Your task to perform on an android device: uninstall "Google Chrome" Image 0: 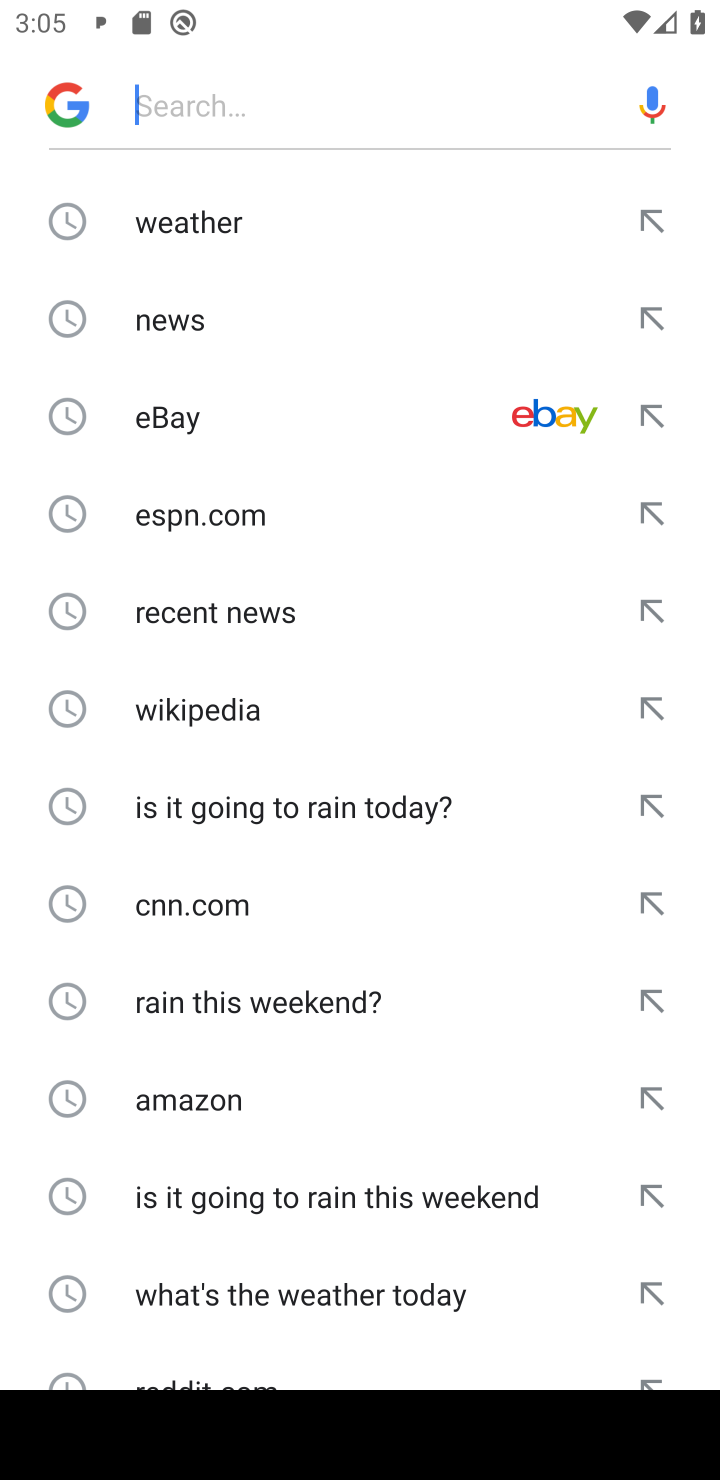
Step 0: press home button
Your task to perform on an android device: uninstall "Google Chrome" Image 1: 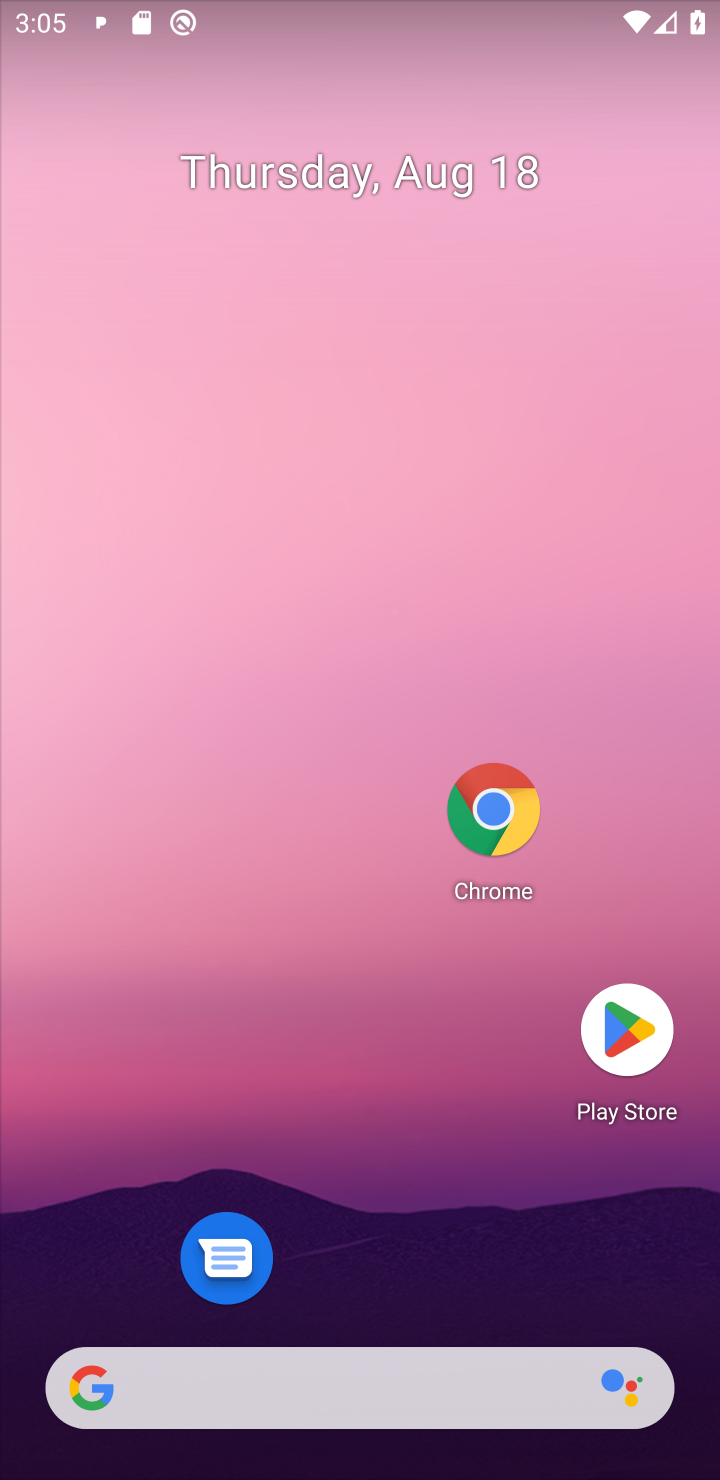
Step 1: click (607, 1028)
Your task to perform on an android device: uninstall "Google Chrome" Image 2: 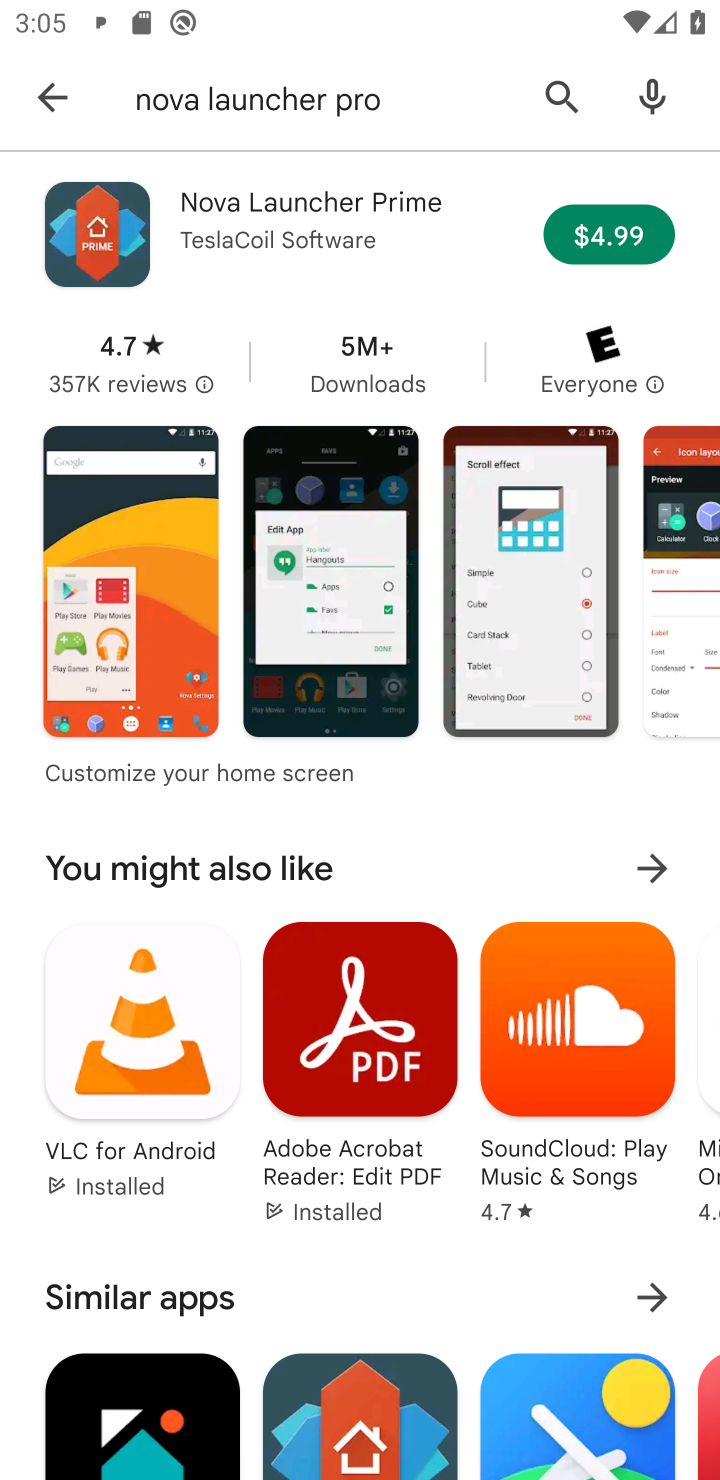
Step 2: click (551, 87)
Your task to perform on an android device: uninstall "Google Chrome" Image 3: 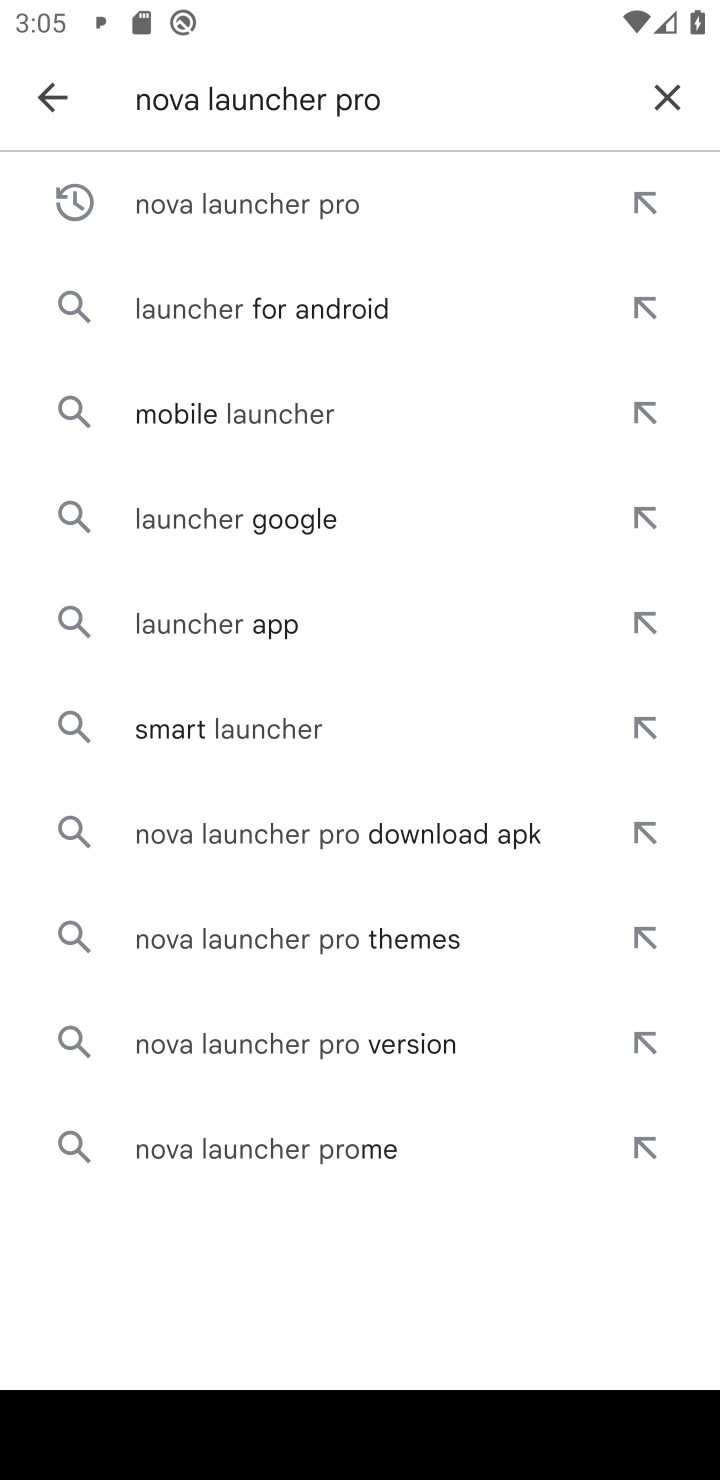
Step 3: click (679, 82)
Your task to perform on an android device: uninstall "Google Chrome" Image 4: 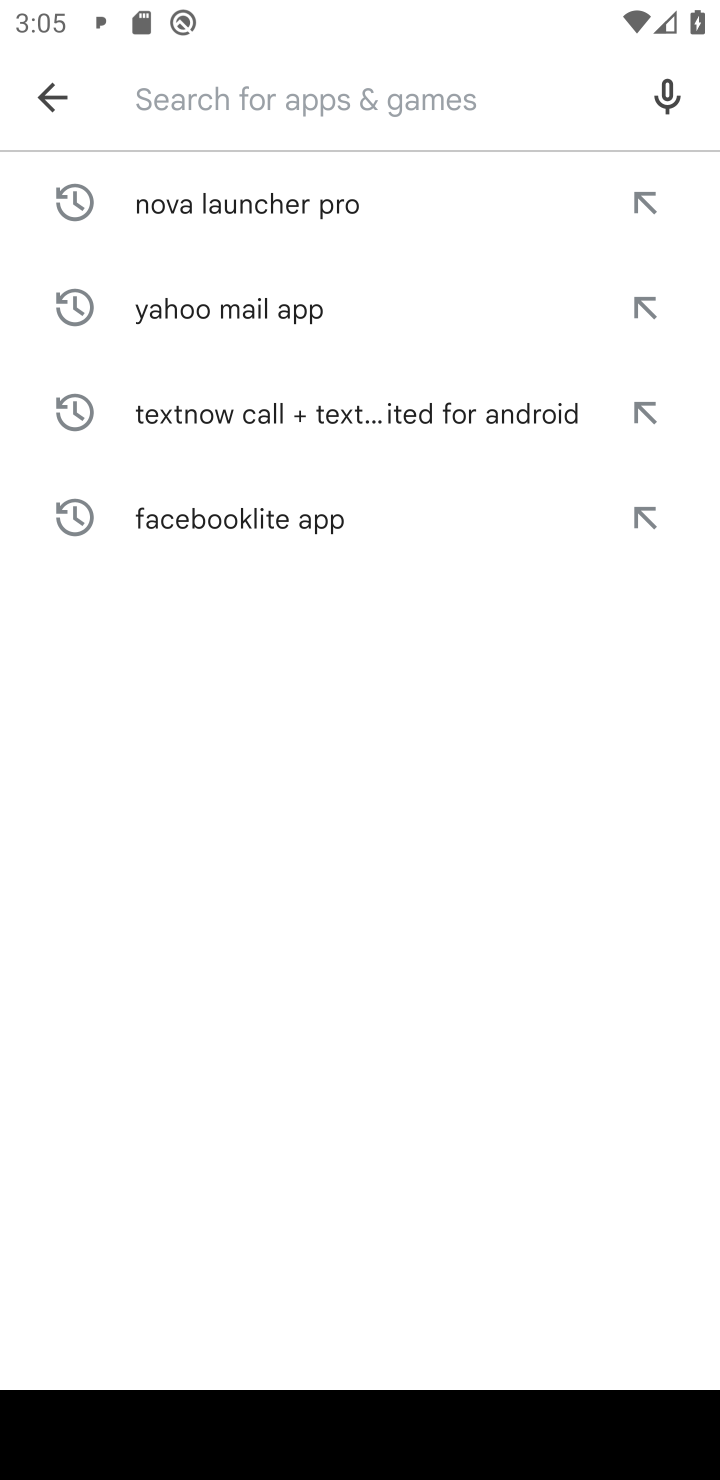
Step 4: click (237, 77)
Your task to perform on an android device: uninstall "Google Chrome" Image 5: 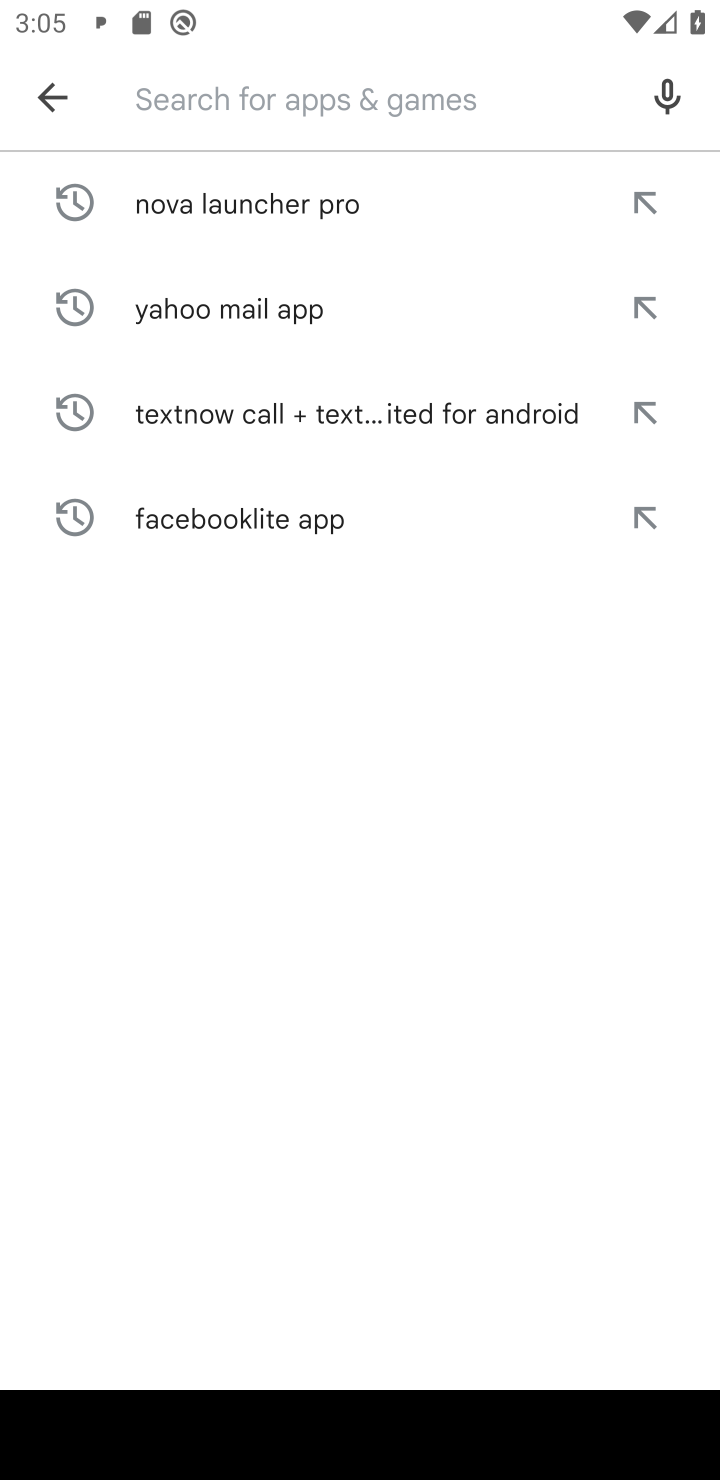
Step 5: type "google chrome "
Your task to perform on an android device: uninstall "Google Chrome" Image 6: 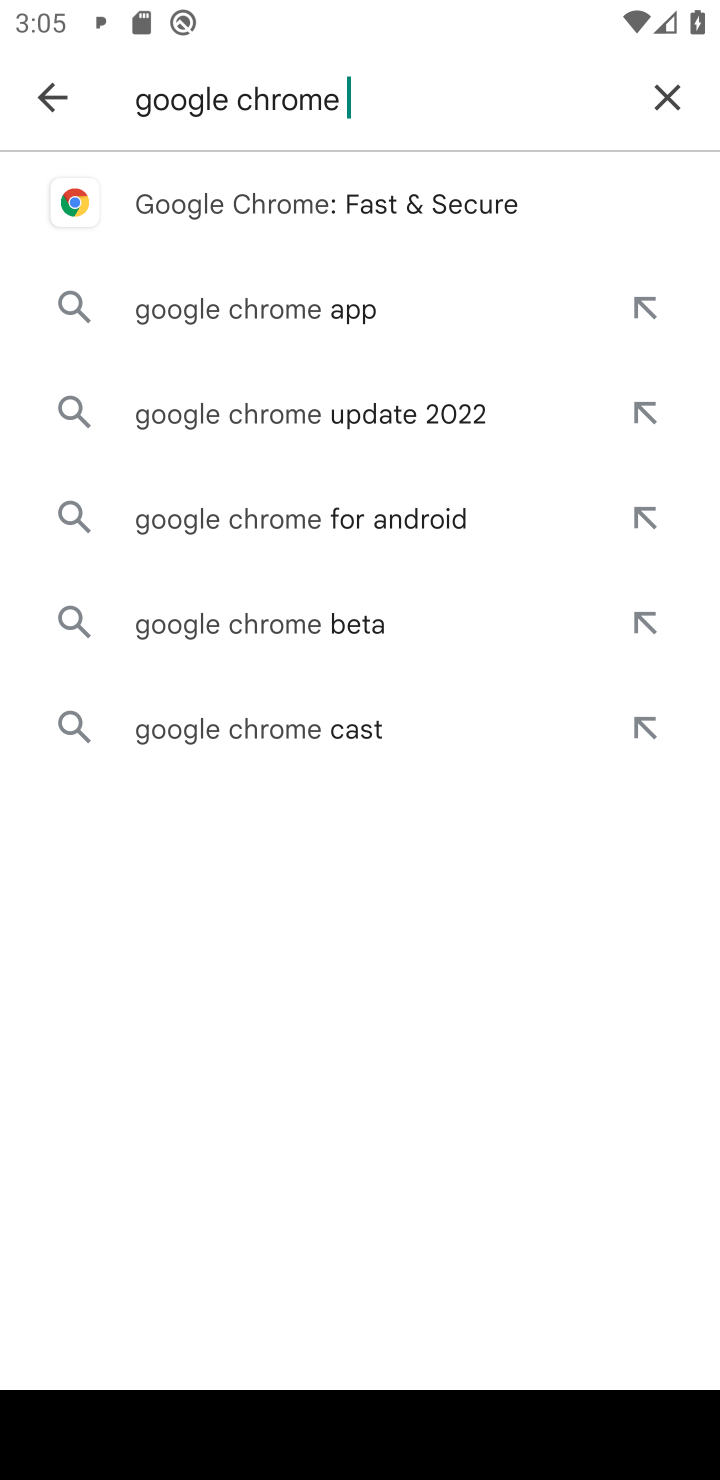
Step 6: click (287, 209)
Your task to perform on an android device: uninstall "Google Chrome" Image 7: 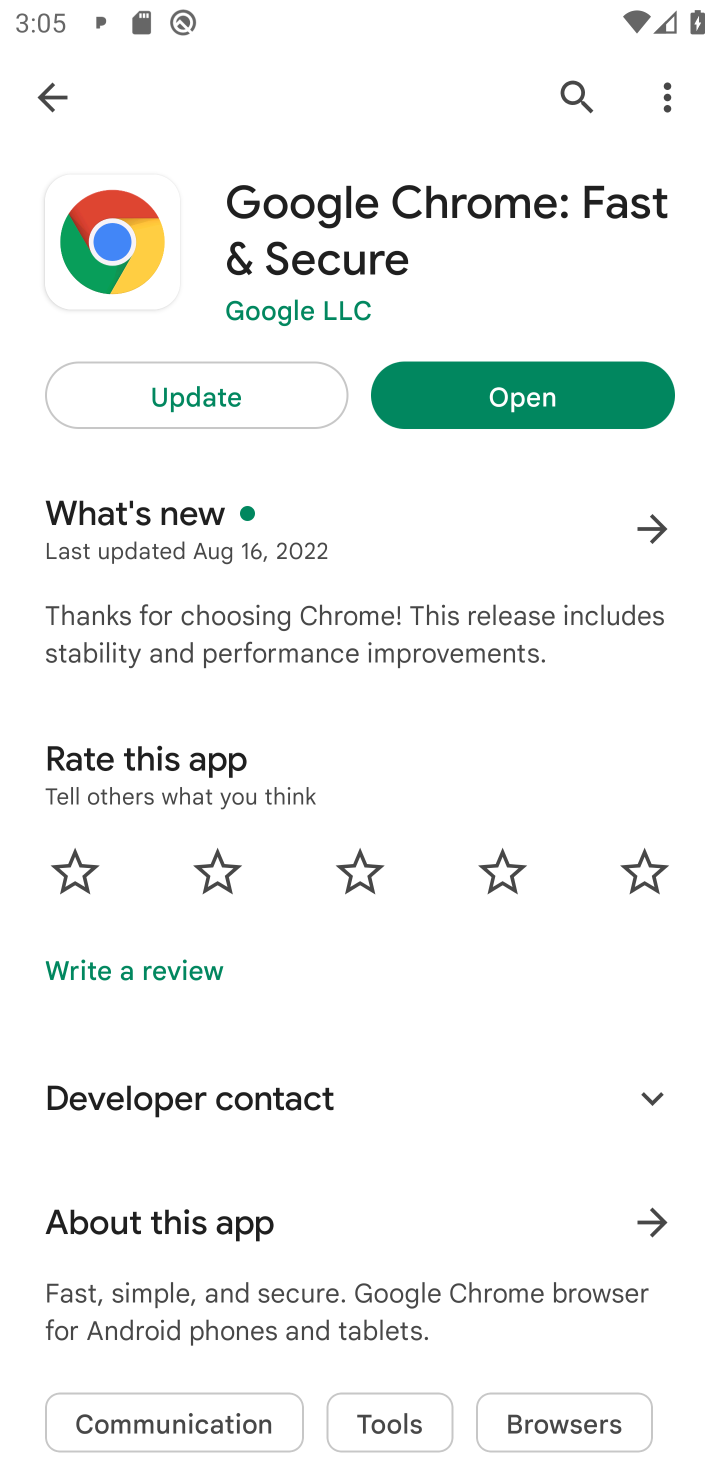
Step 7: click (552, 385)
Your task to perform on an android device: uninstall "Google Chrome" Image 8: 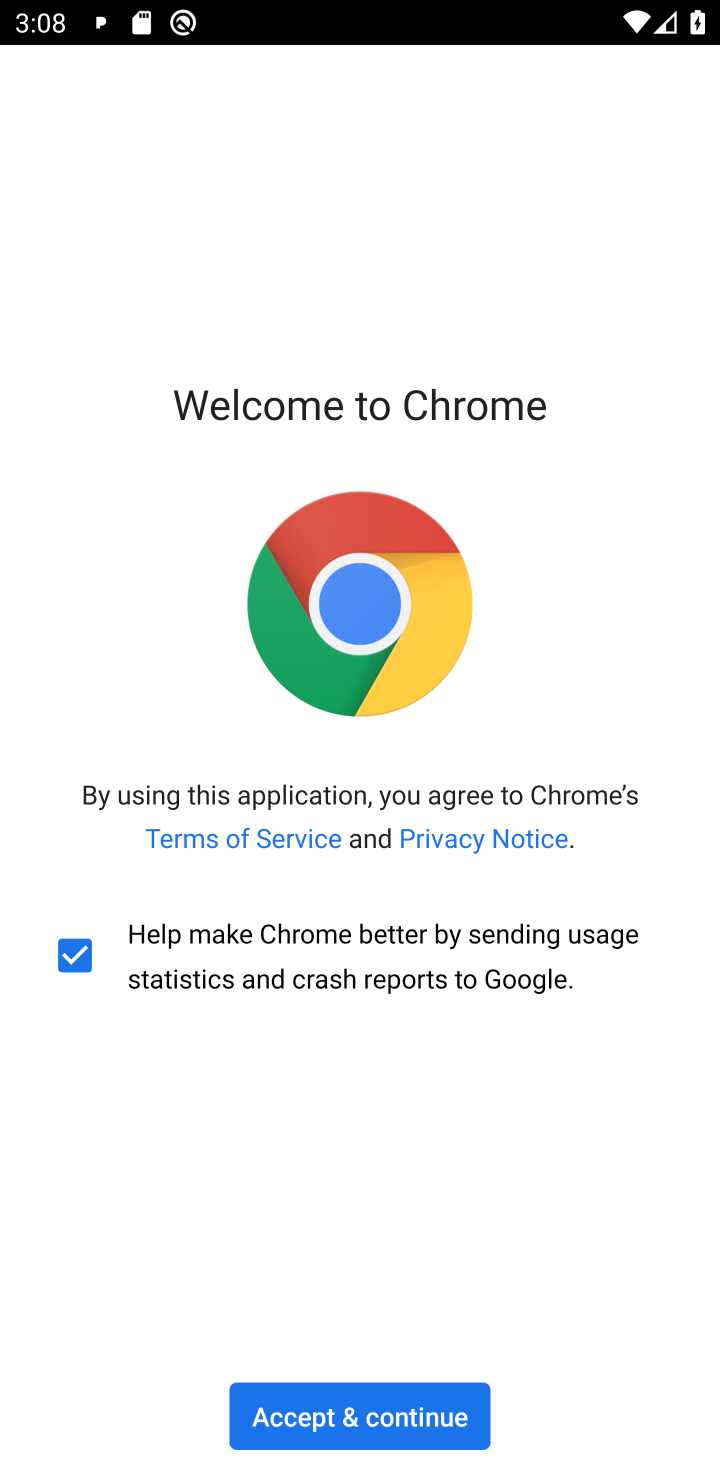
Step 8: press back button
Your task to perform on an android device: uninstall "Google Chrome" Image 9: 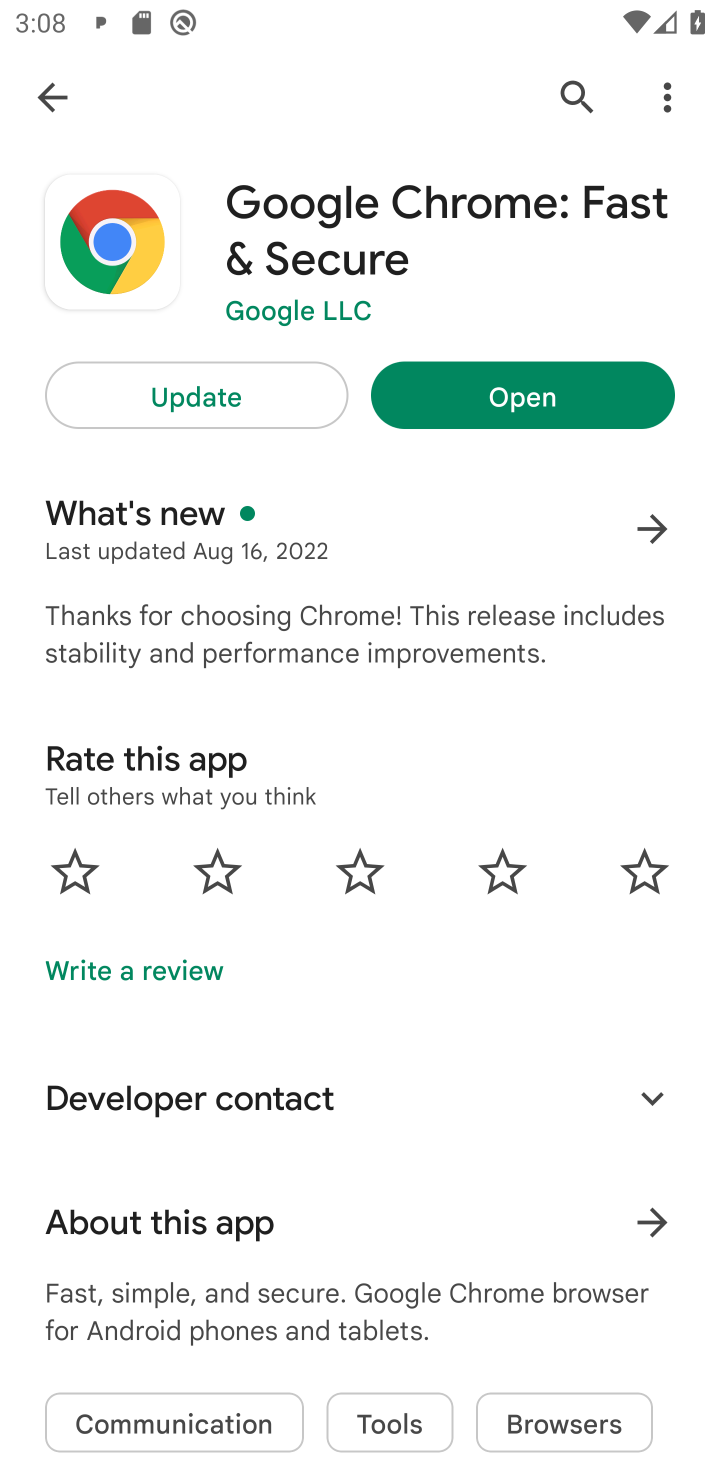
Step 9: click (274, 381)
Your task to perform on an android device: uninstall "Google Chrome" Image 10: 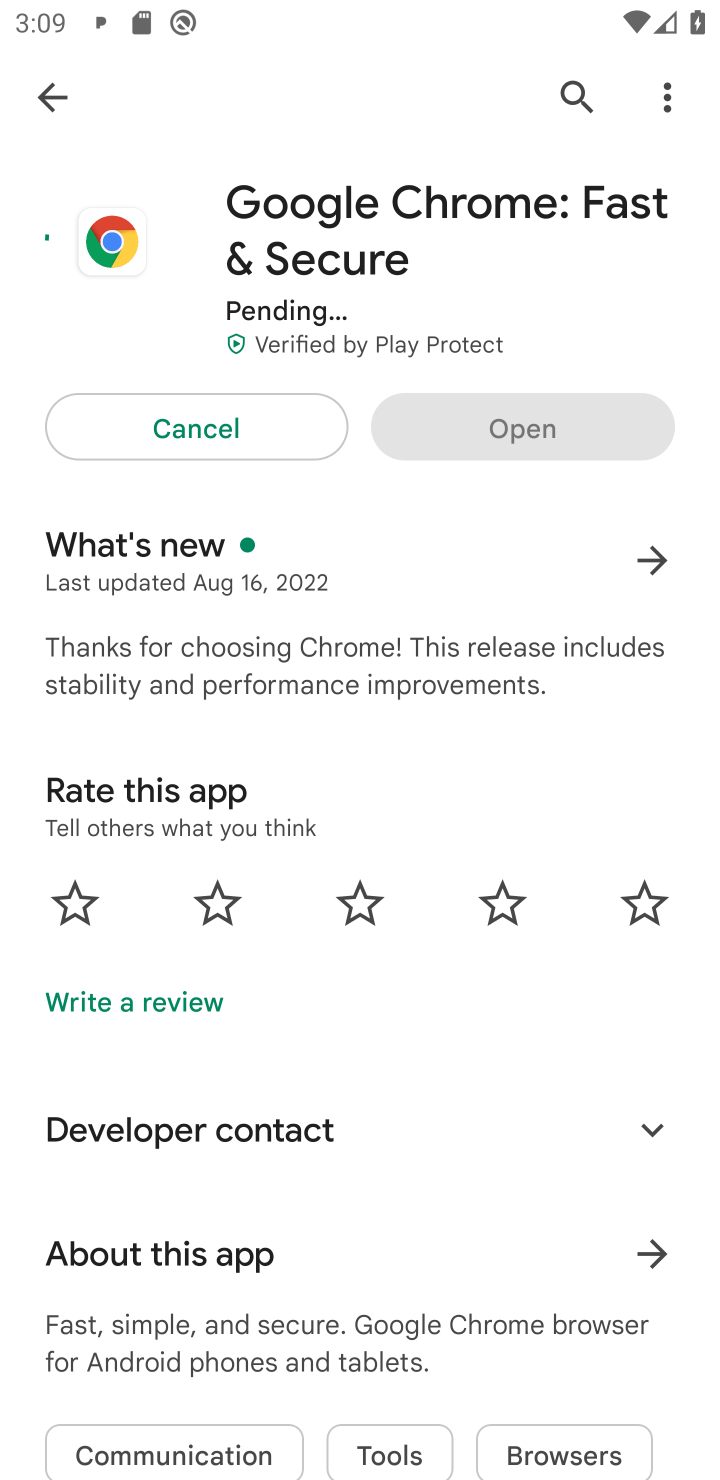
Step 10: task complete